Your task to perform on an android device: see tabs open on other devices in the chrome app Image 0: 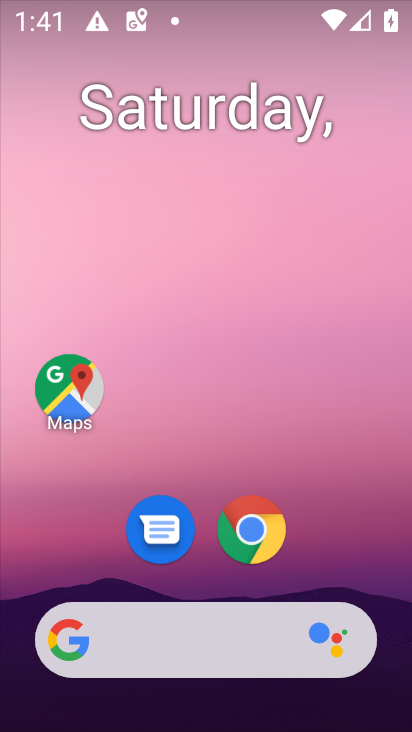
Step 0: click (250, 537)
Your task to perform on an android device: see tabs open on other devices in the chrome app Image 1: 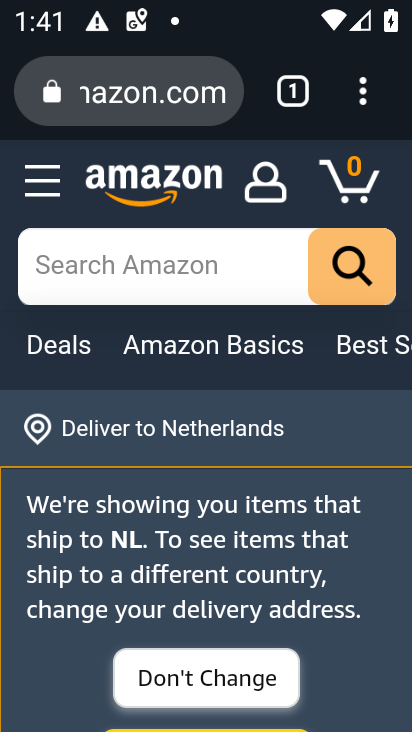
Step 1: click (363, 88)
Your task to perform on an android device: see tabs open on other devices in the chrome app Image 2: 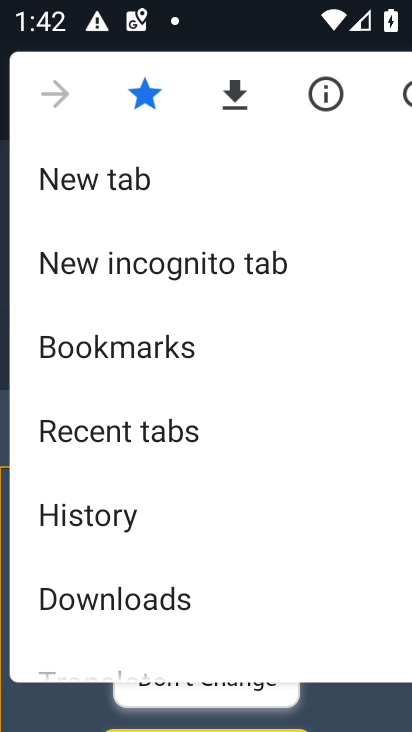
Step 2: click (159, 439)
Your task to perform on an android device: see tabs open on other devices in the chrome app Image 3: 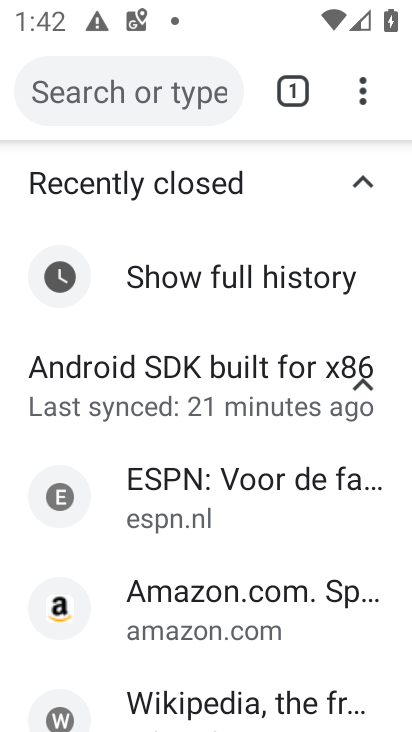
Step 3: task complete